Your task to perform on an android device: check android version Image 0: 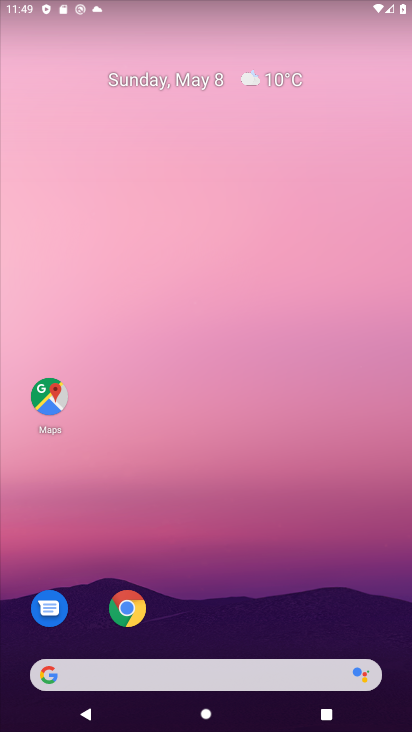
Step 0: drag from (220, 597) to (229, 242)
Your task to perform on an android device: check android version Image 1: 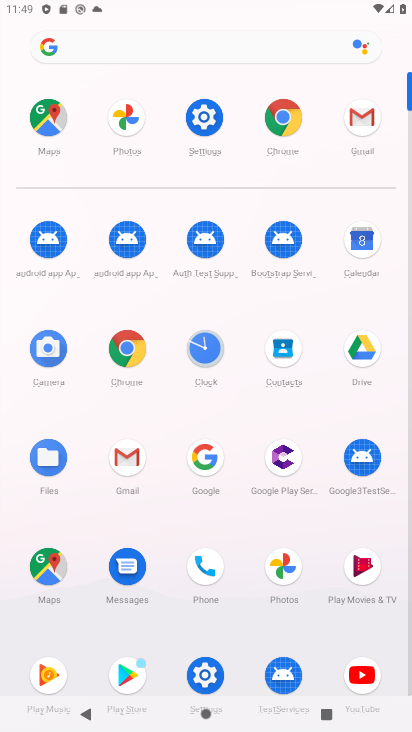
Step 1: click (216, 145)
Your task to perform on an android device: check android version Image 2: 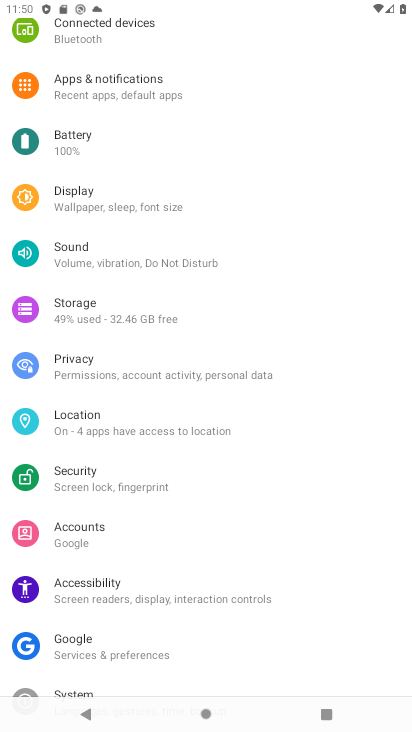
Step 2: drag from (142, 582) to (140, 244)
Your task to perform on an android device: check android version Image 3: 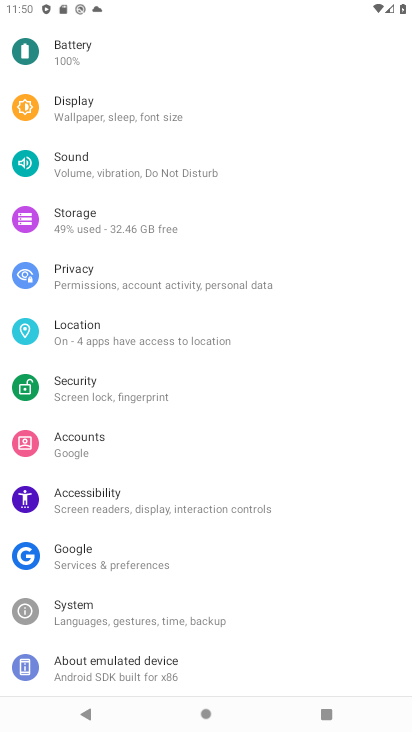
Step 3: click (134, 678)
Your task to perform on an android device: check android version Image 4: 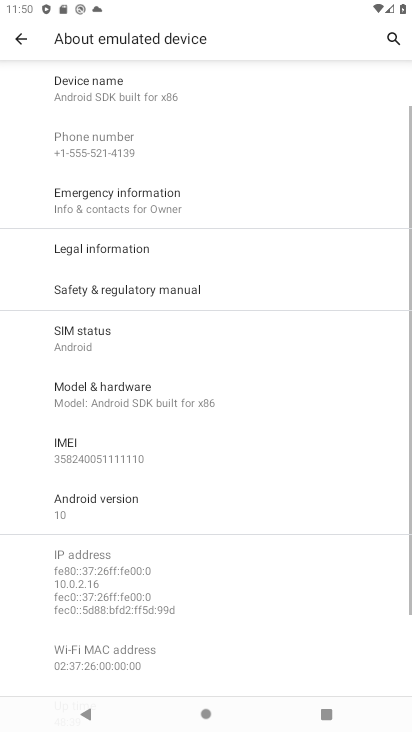
Step 4: task complete